Your task to perform on an android device: check out phone information Image 0: 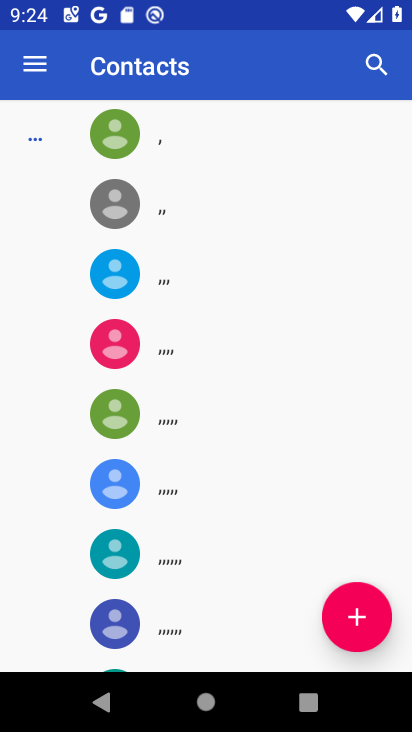
Step 0: press home button
Your task to perform on an android device: check out phone information Image 1: 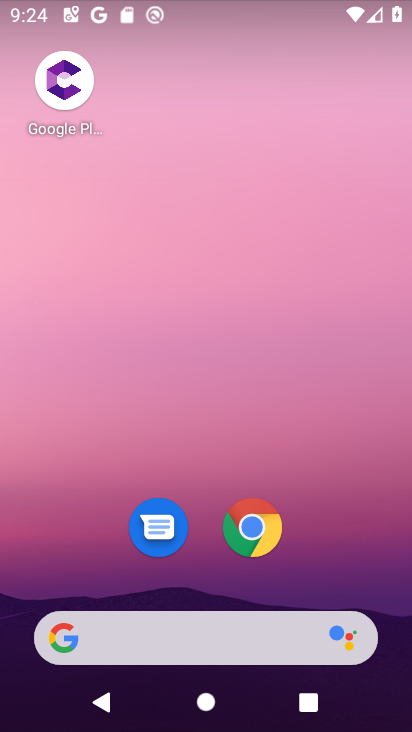
Step 1: drag from (325, 571) to (372, 199)
Your task to perform on an android device: check out phone information Image 2: 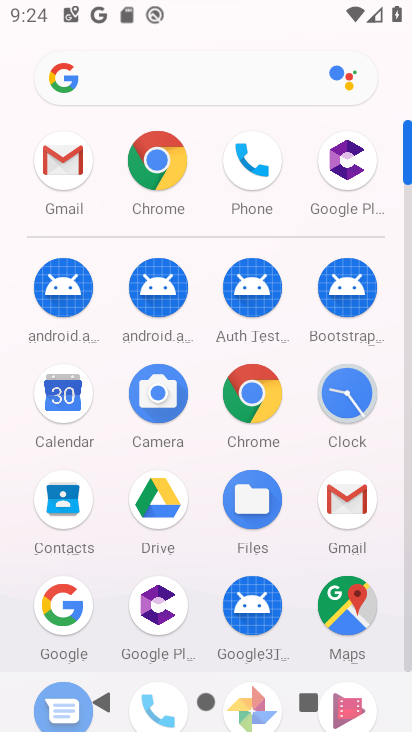
Step 2: drag from (189, 595) to (301, 269)
Your task to perform on an android device: check out phone information Image 3: 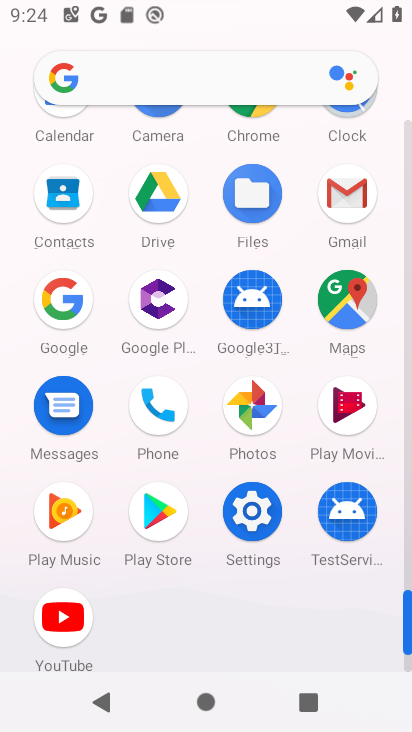
Step 3: click (257, 528)
Your task to perform on an android device: check out phone information Image 4: 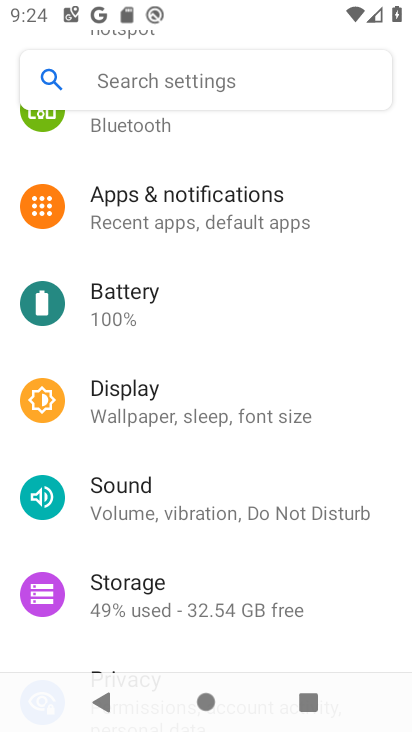
Step 4: drag from (211, 633) to (331, 100)
Your task to perform on an android device: check out phone information Image 5: 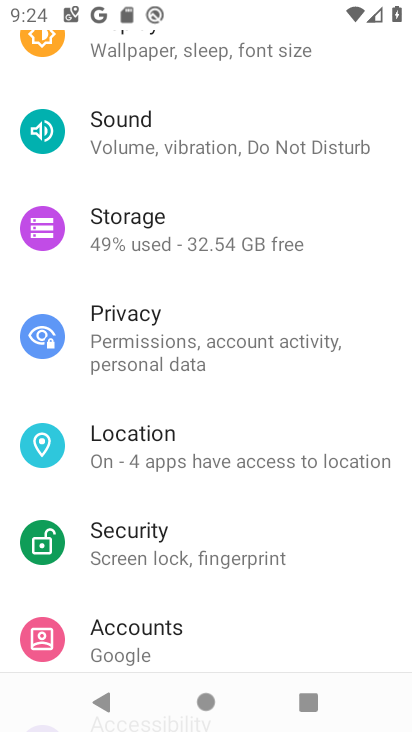
Step 5: drag from (127, 609) to (255, 85)
Your task to perform on an android device: check out phone information Image 6: 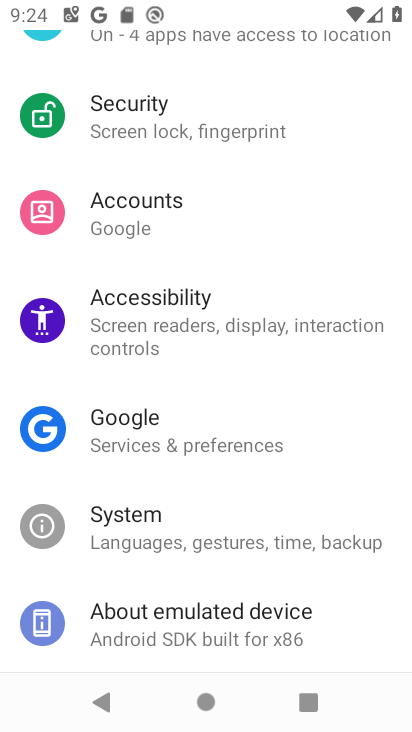
Step 6: click (108, 624)
Your task to perform on an android device: check out phone information Image 7: 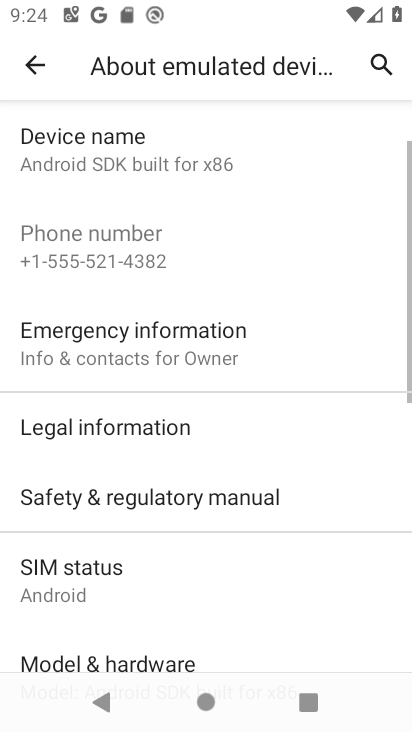
Step 7: task complete